Your task to perform on an android device: Go to battery settings Image 0: 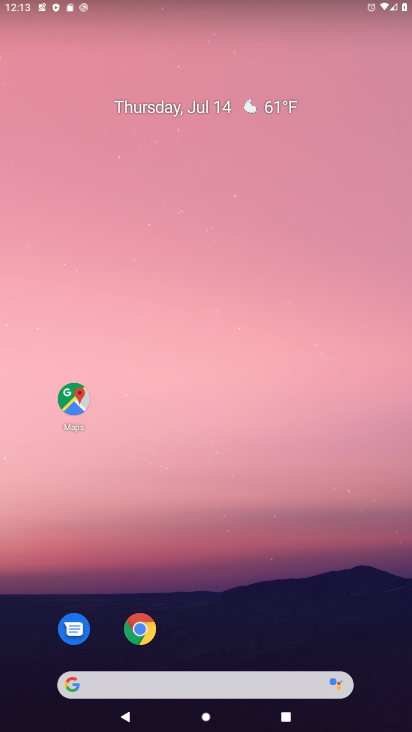
Step 0: drag from (251, 585) to (152, 44)
Your task to perform on an android device: Go to battery settings Image 1: 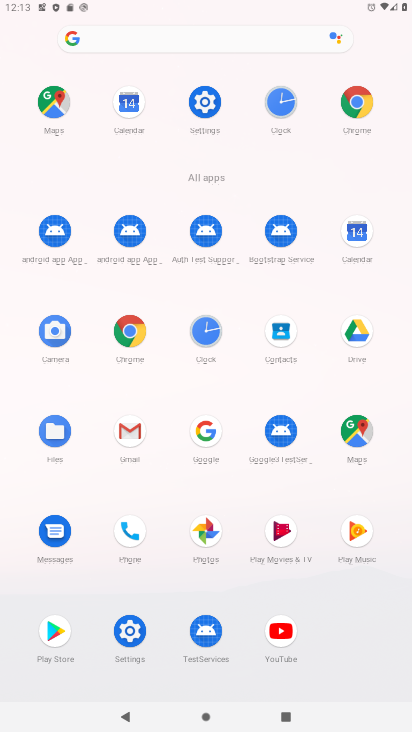
Step 1: click (201, 102)
Your task to perform on an android device: Go to battery settings Image 2: 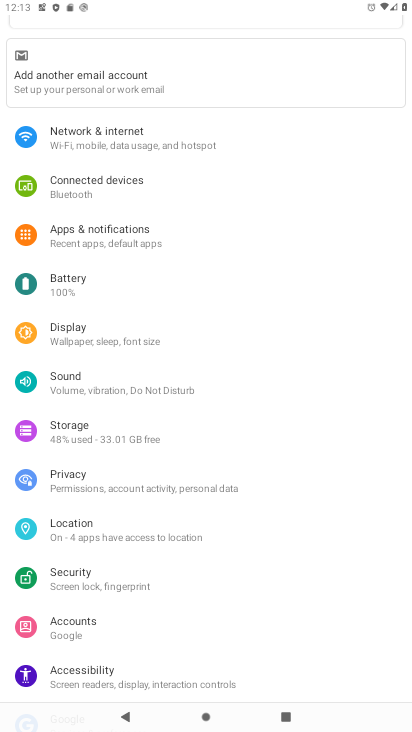
Step 2: click (68, 279)
Your task to perform on an android device: Go to battery settings Image 3: 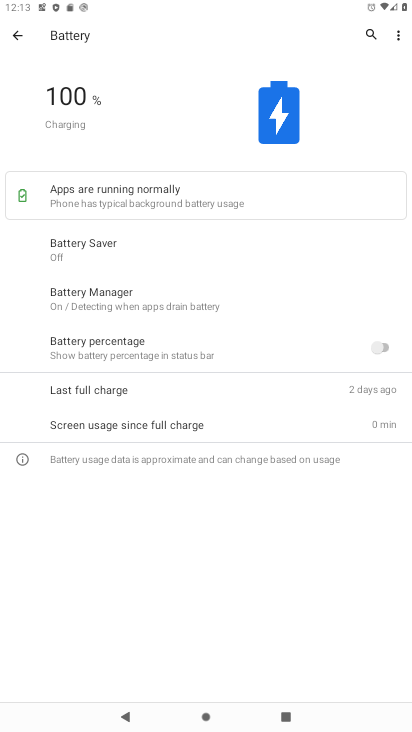
Step 3: task complete